Your task to perform on an android device: Go to network settings Image 0: 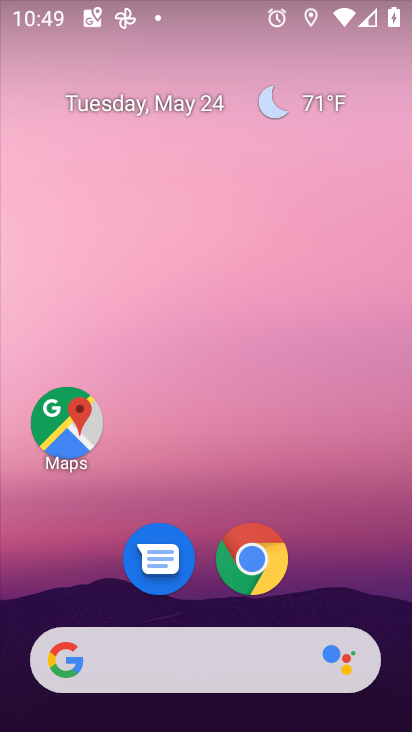
Step 0: drag from (396, 660) to (234, 55)
Your task to perform on an android device: Go to network settings Image 1: 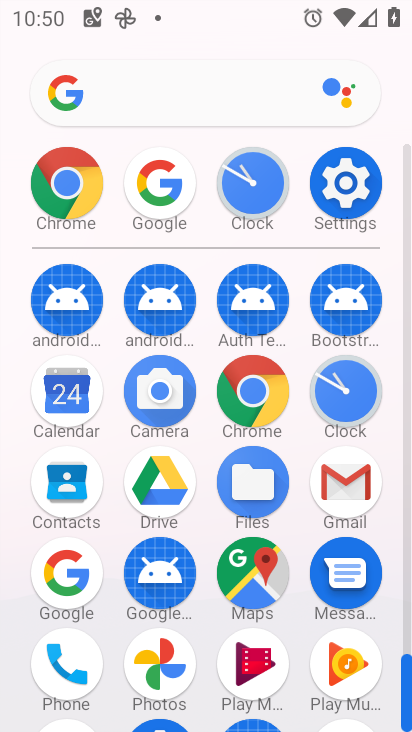
Step 1: click (366, 167)
Your task to perform on an android device: Go to network settings Image 2: 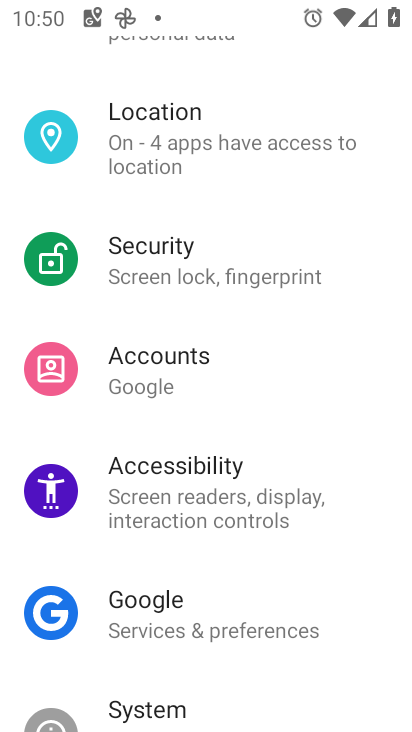
Step 2: drag from (214, 152) to (176, 566)
Your task to perform on an android device: Go to network settings Image 3: 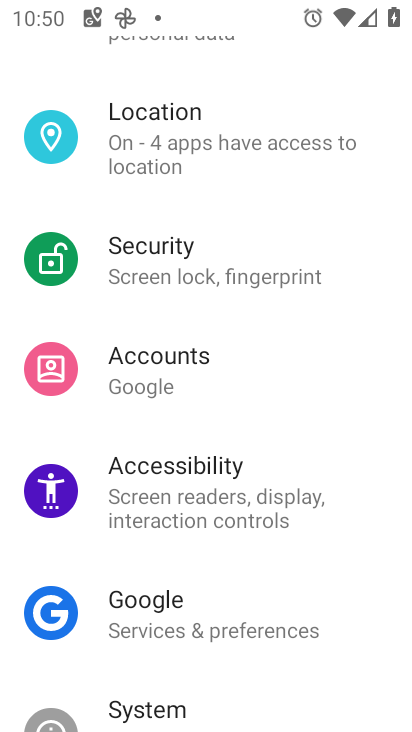
Step 3: drag from (193, 158) to (208, 581)
Your task to perform on an android device: Go to network settings Image 4: 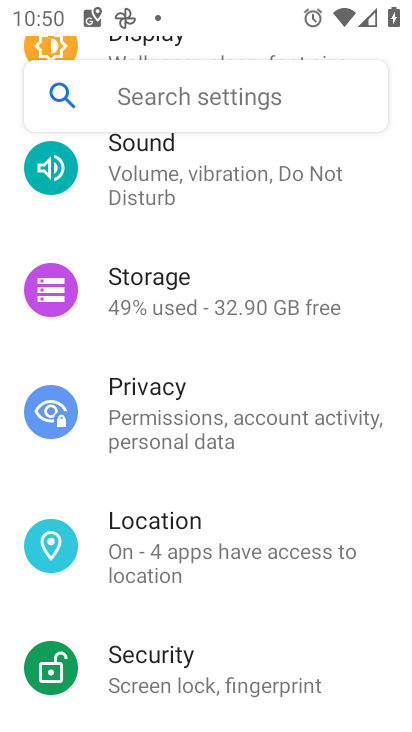
Step 4: drag from (189, 180) to (174, 652)
Your task to perform on an android device: Go to network settings Image 5: 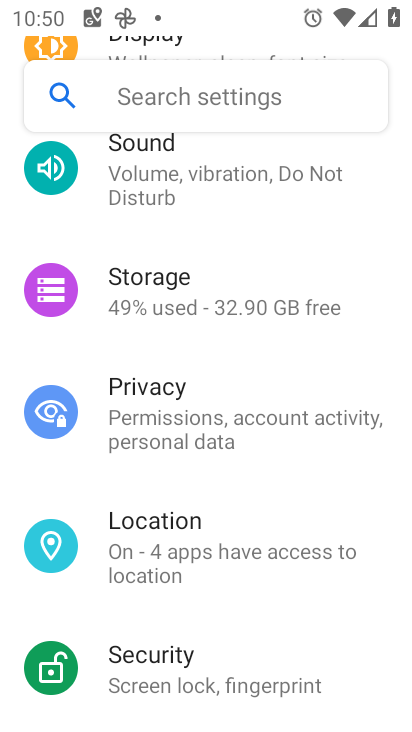
Step 5: drag from (141, 174) to (172, 678)
Your task to perform on an android device: Go to network settings Image 6: 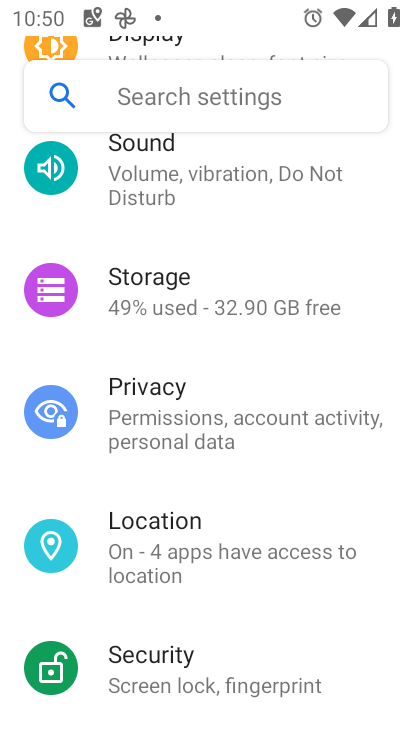
Step 6: drag from (236, 177) to (229, 729)
Your task to perform on an android device: Go to network settings Image 7: 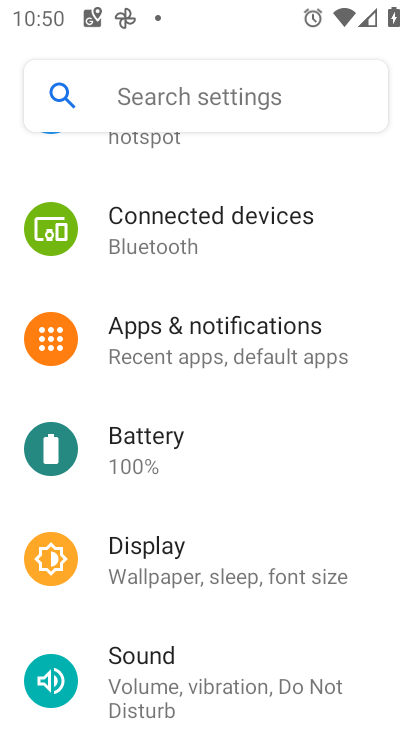
Step 7: drag from (209, 217) to (175, 582)
Your task to perform on an android device: Go to network settings Image 8: 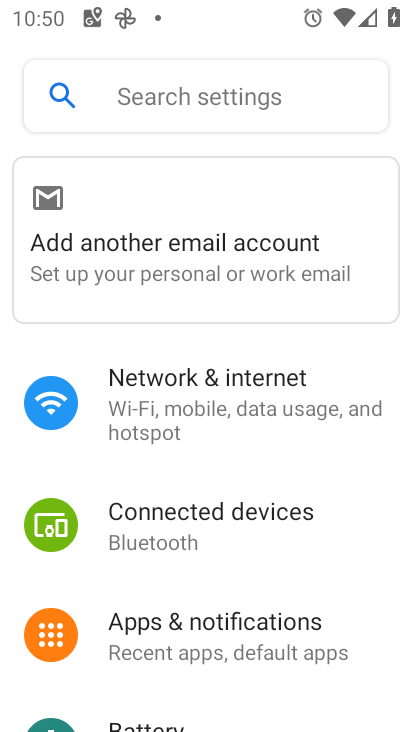
Step 8: click (243, 405)
Your task to perform on an android device: Go to network settings Image 9: 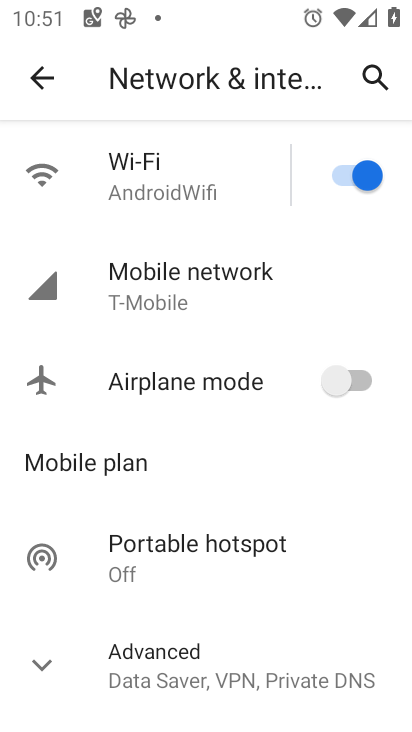
Step 9: task complete